Your task to perform on an android device: Search for 8K TVs on Best Buy. Image 0: 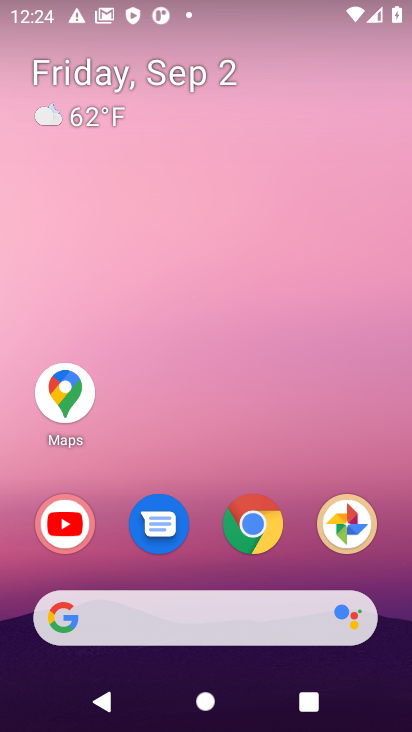
Step 0: click (242, 529)
Your task to perform on an android device: Search for 8K TVs on Best Buy. Image 1: 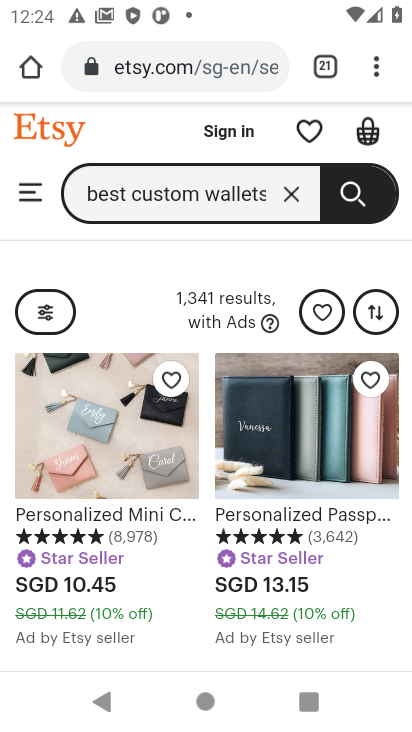
Step 1: click (321, 72)
Your task to perform on an android device: Search for 8K TVs on Best Buy. Image 2: 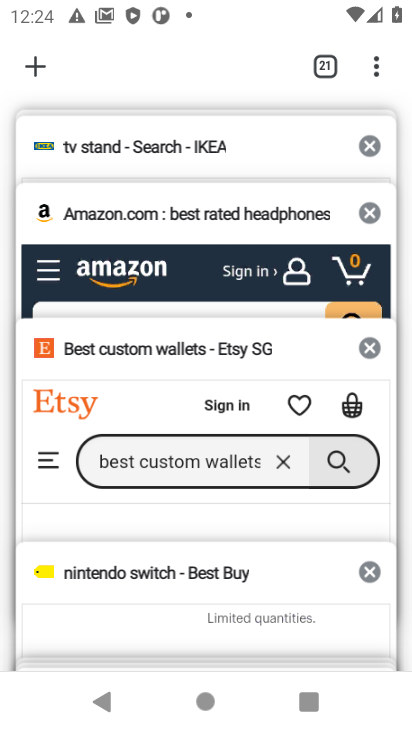
Step 2: click (201, 147)
Your task to perform on an android device: Search for 8K TVs on Best Buy. Image 3: 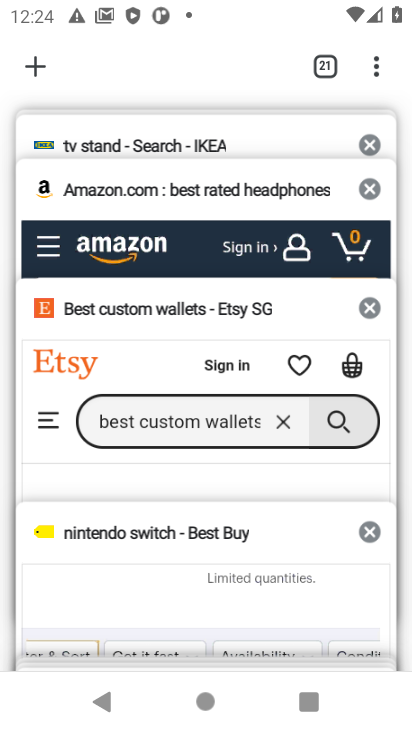
Step 3: click (182, 529)
Your task to perform on an android device: Search for 8K TVs on Best Buy. Image 4: 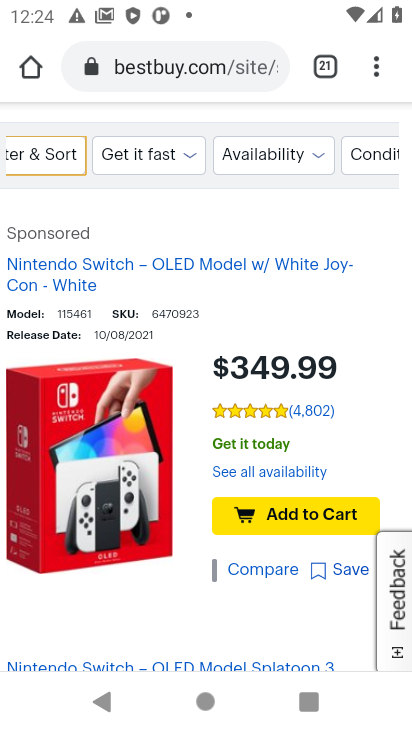
Step 4: drag from (329, 454) to (334, 581)
Your task to perform on an android device: Search for 8K TVs on Best Buy. Image 5: 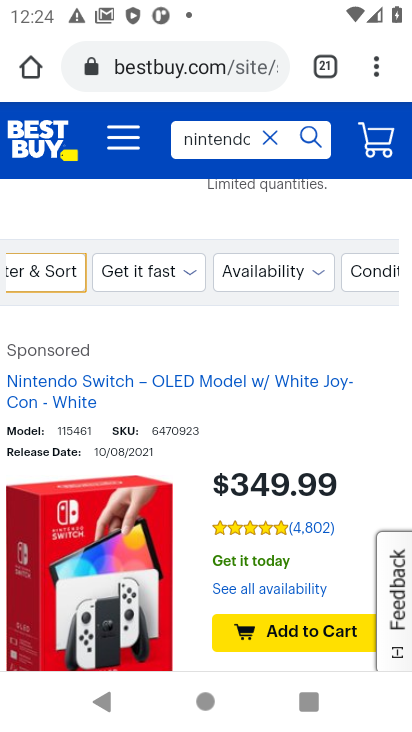
Step 5: click (270, 137)
Your task to perform on an android device: Search for 8K TVs on Best Buy. Image 6: 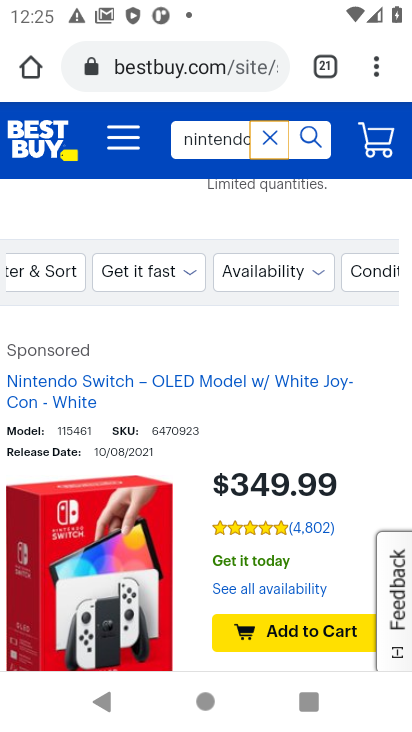
Step 6: click (240, 140)
Your task to perform on an android device: Search for 8K TVs on Best Buy. Image 7: 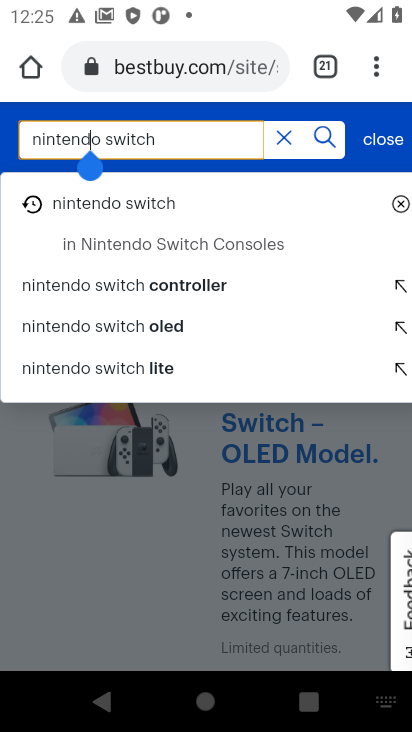
Step 7: click (281, 135)
Your task to perform on an android device: Search for 8K TVs on Best Buy. Image 8: 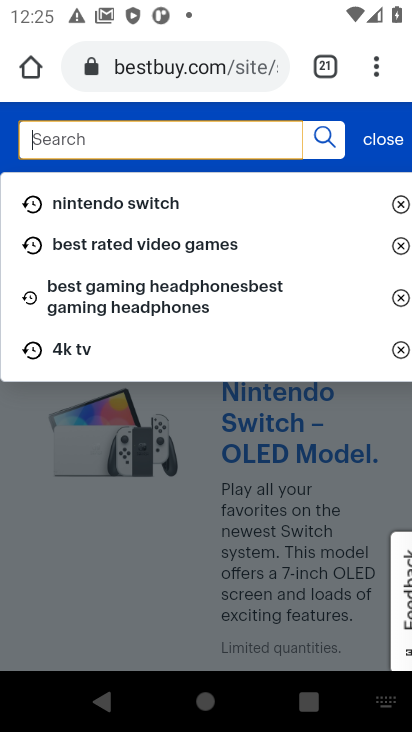
Step 8: type "8K TVs"
Your task to perform on an android device: Search for 8K TVs on Best Buy. Image 9: 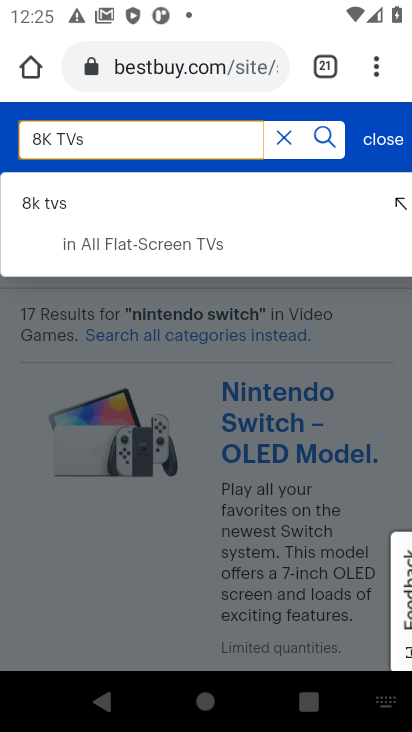
Step 9: click (50, 204)
Your task to perform on an android device: Search for 8K TVs on Best Buy. Image 10: 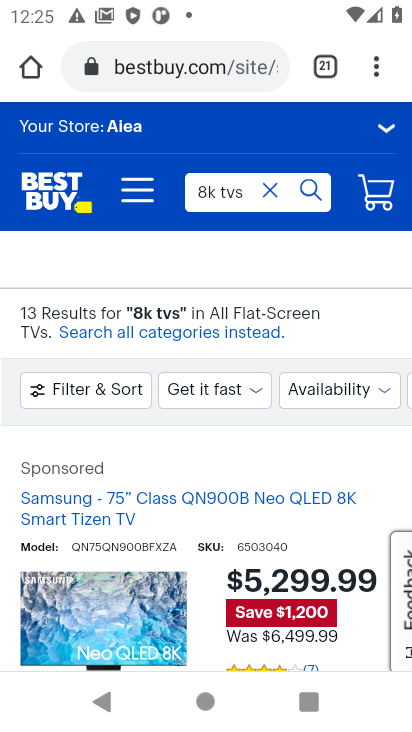
Step 10: drag from (193, 618) to (190, 183)
Your task to perform on an android device: Search for 8K TVs on Best Buy. Image 11: 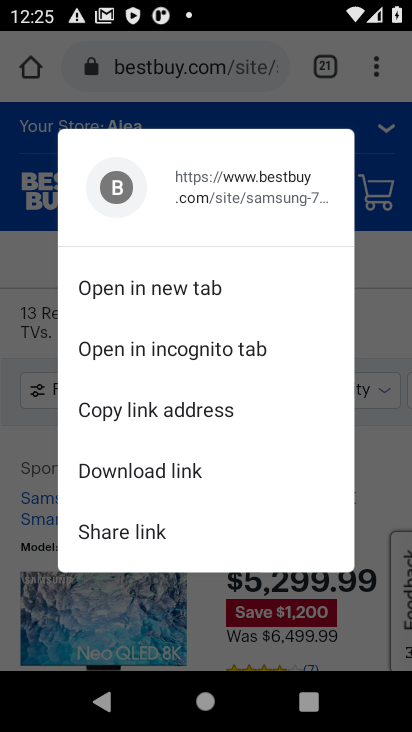
Step 11: click (386, 355)
Your task to perform on an android device: Search for 8K TVs on Best Buy. Image 12: 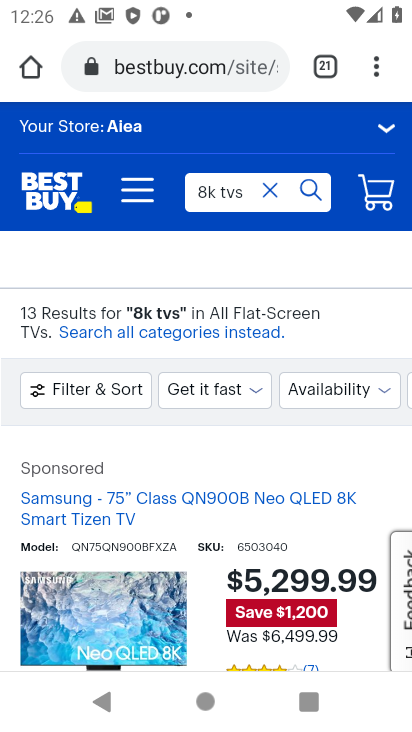
Step 12: task complete